Your task to perform on an android device: add a contact Image 0: 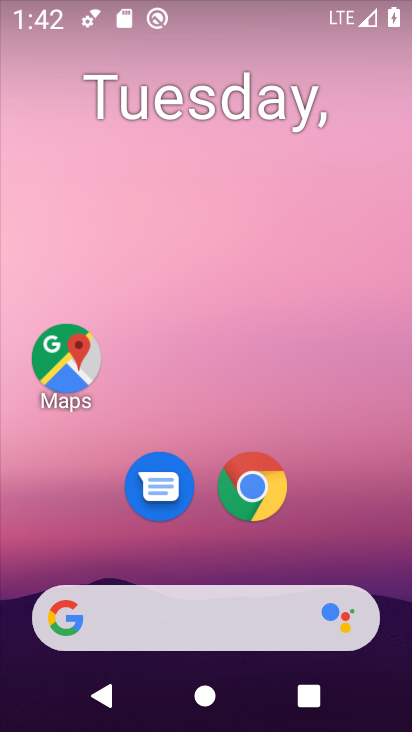
Step 0: press home button
Your task to perform on an android device: add a contact Image 1: 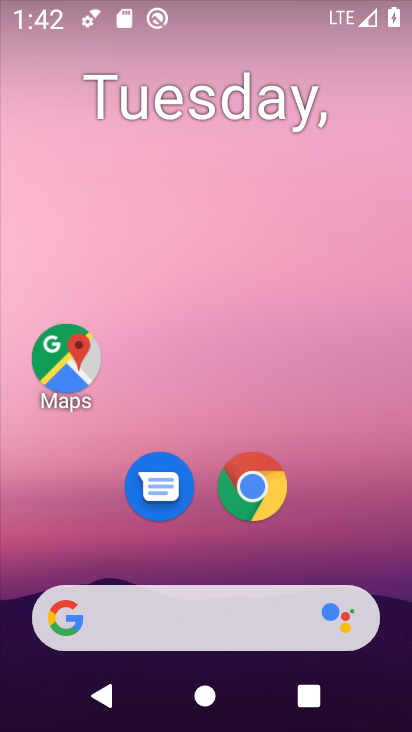
Step 1: drag from (362, 557) to (368, 192)
Your task to perform on an android device: add a contact Image 2: 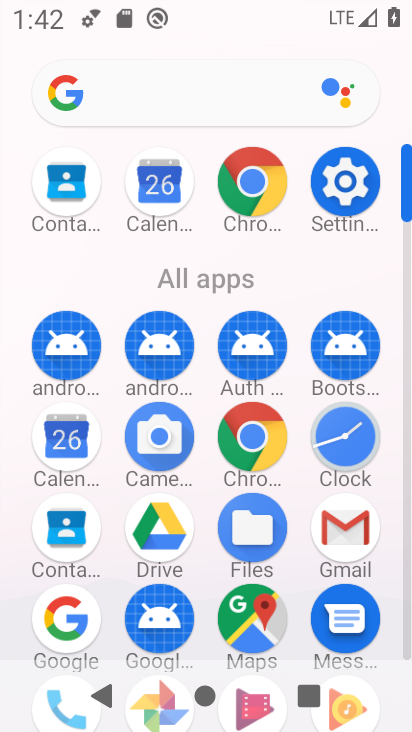
Step 2: click (59, 537)
Your task to perform on an android device: add a contact Image 3: 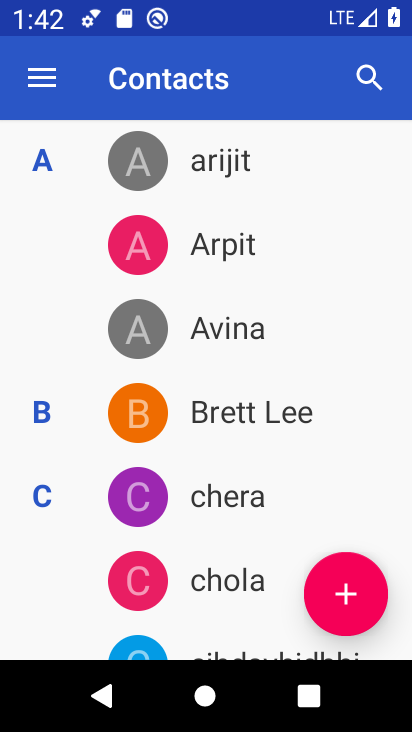
Step 3: click (350, 595)
Your task to perform on an android device: add a contact Image 4: 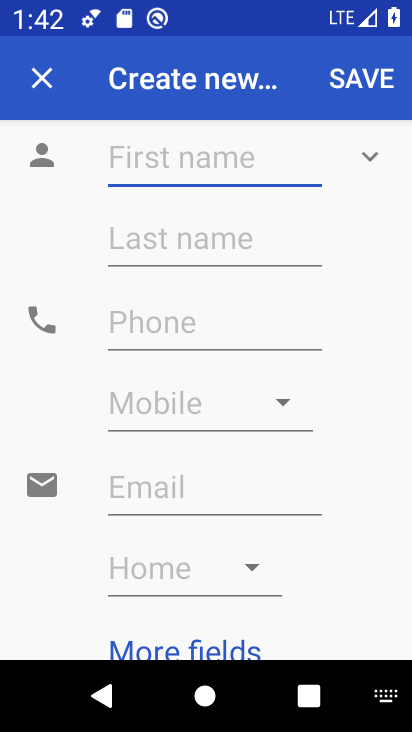
Step 4: type "kkk"
Your task to perform on an android device: add a contact Image 5: 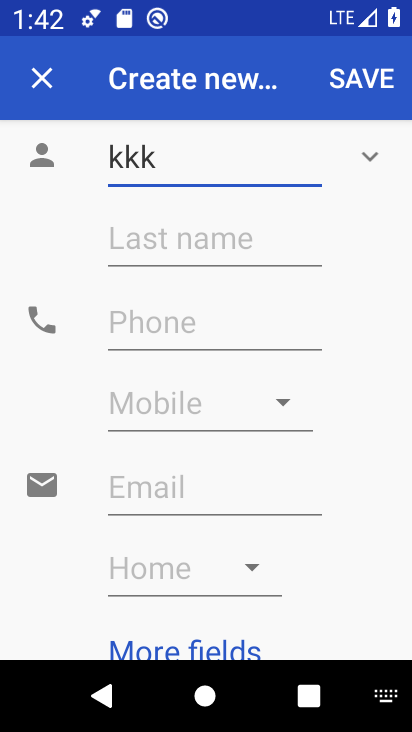
Step 5: click (280, 326)
Your task to perform on an android device: add a contact Image 6: 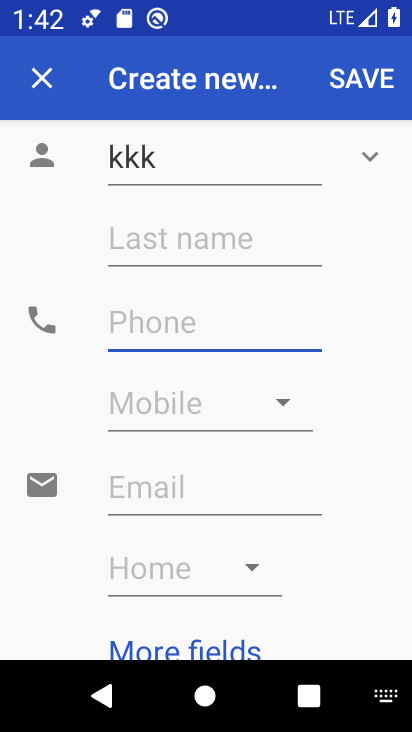
Step 6: type "988776554"
Your task to perform on an android device: add a contact Image 7: 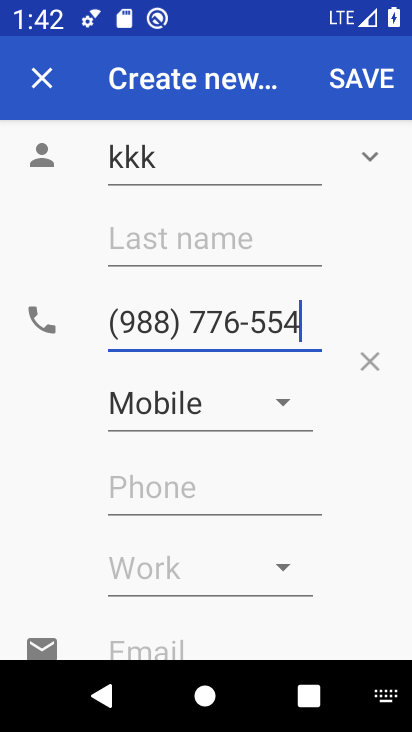
Step 7: click (368, 80)
Your task to perform on an android device: add a contact Image 8: 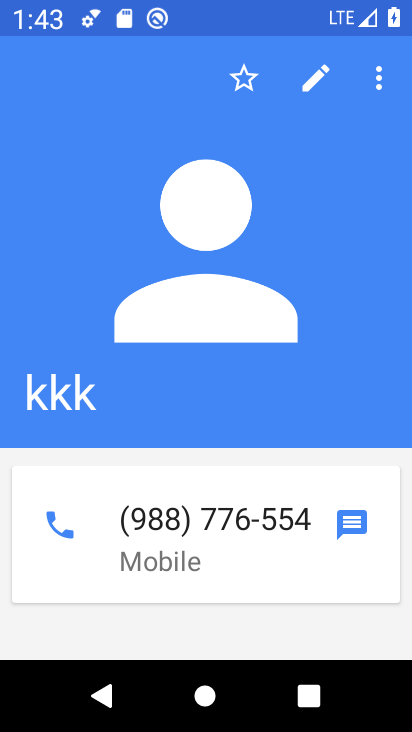
Step 8: task complete